Your task to perform on an android device: see creations saved in the google photos Image 0: 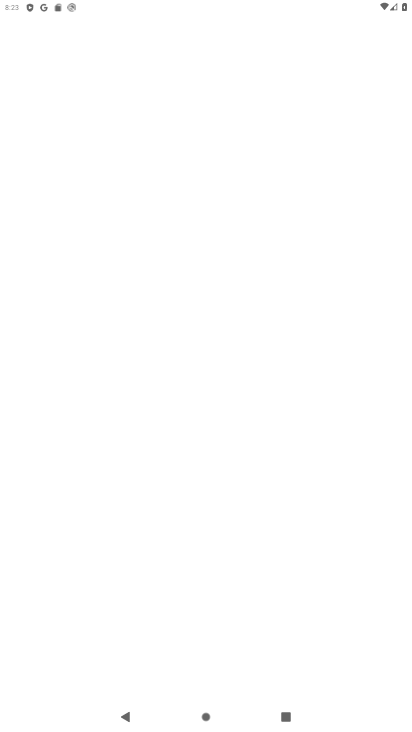
Step 0: press home button
Your task to perform on an android device: see creations saved in the google photos Image 1: 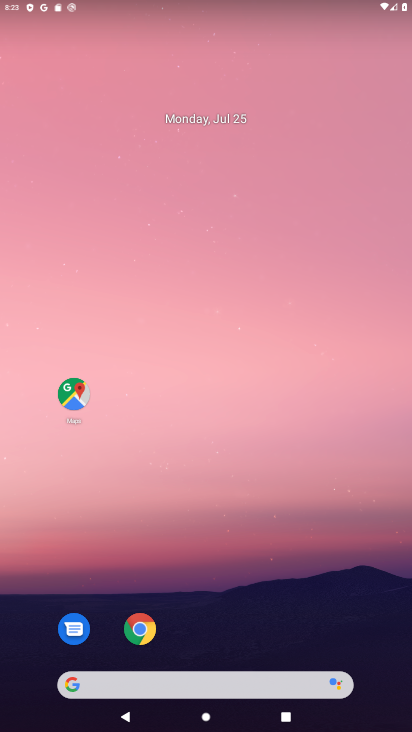
Step 1: drag from (265, 632) to (207, 88)
Your task to perform on an android device: see creations saved in the google photos Image 2: 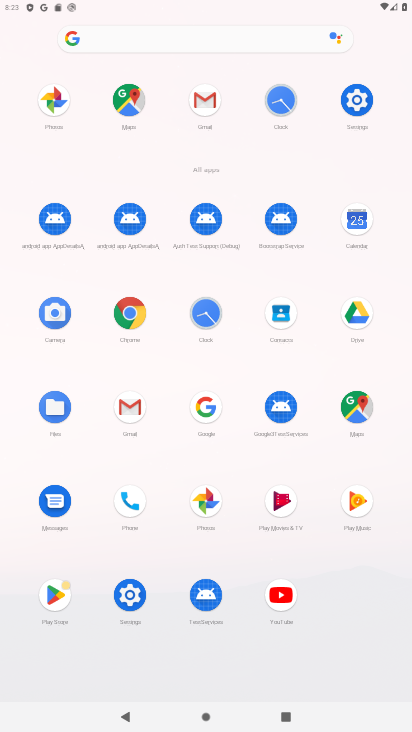
Step 2: click (60, 100)
Your task to perform on an android device: see creations saved in the google photos Image 3: 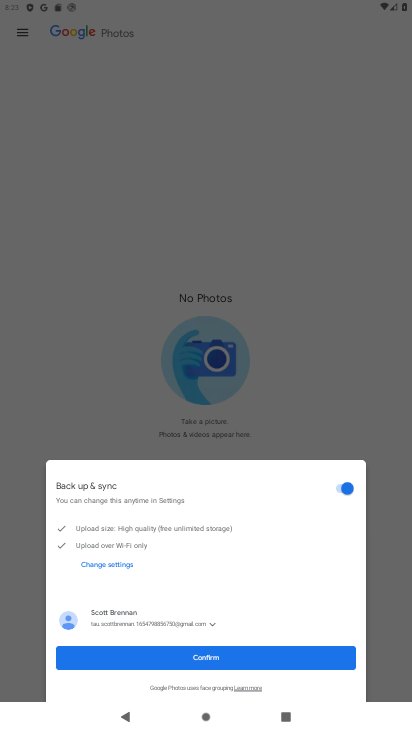
Step 3: click (193, 652)
Your task to perform on an android device: see creations saved in the google photos Image 4: 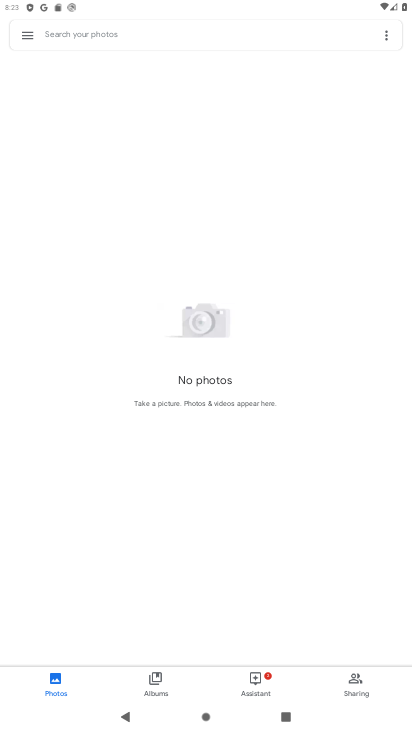
Step 4: click (87, 35)
Your task to perform on an android device: see creations saved in the google photos Image 5: 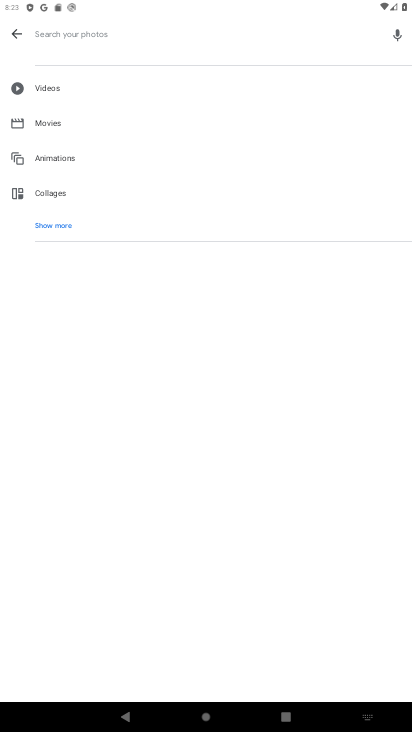
Step 5: click (71, 215)
Your task to perform on an android device: see creations saved in the google photos Image 6: 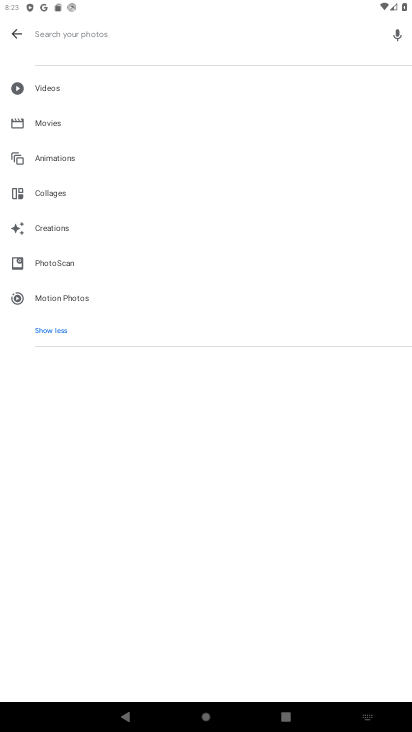
Step 6: click (69, 228)
Your task to perform on an android device: see creations saved in the google photos Image 7: 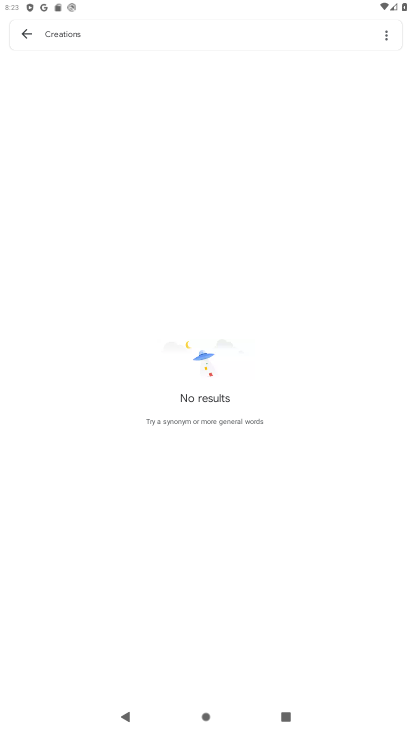
Step 7: task complete